Your task to perform on an android device: Search for Italian restaurants on Maps Image 0: 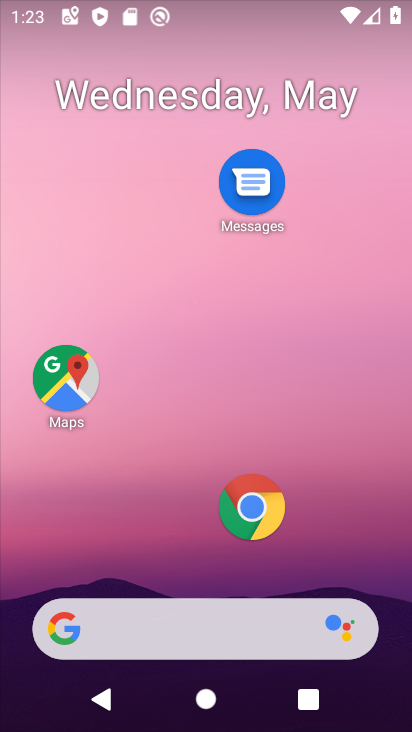
Step 0: drag from (207, 553) to (202, 213)
Your task to perform on an android device: Search for Italian restaurants on Maps Image 1: 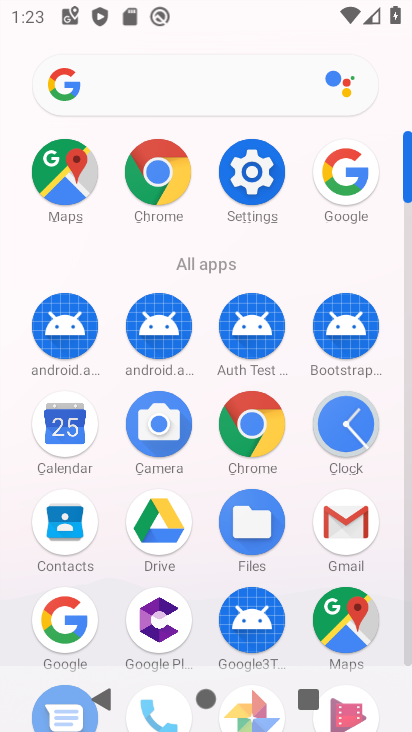
Step 1: click (361, 629)
Your task to perform on an android device: Search for Italian restaurants on Maps Image 2: 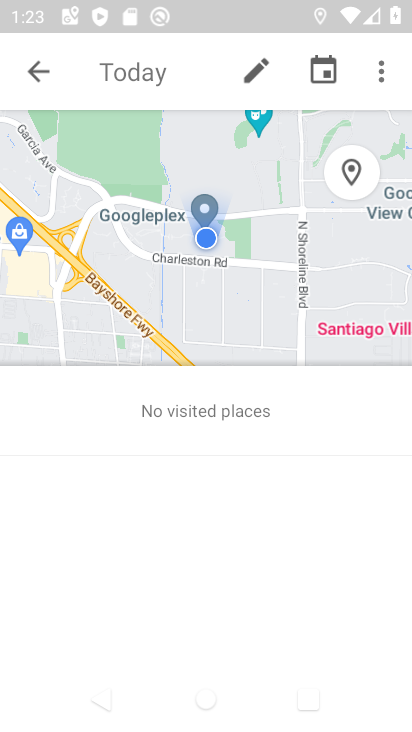
Step 2: click (40, 78)
Your task to perform on an android device: Search for Italian restaurants on Maps Image 3: 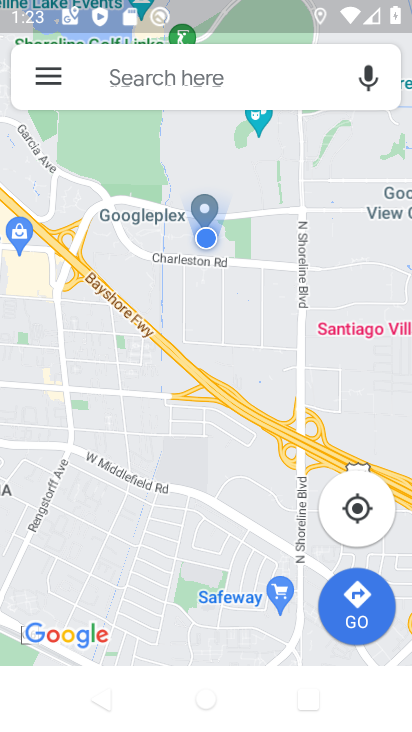
Step 3: click (198, 79)
Your task to perform on an android device: Search for Italian restaurants on Maps Image 4: 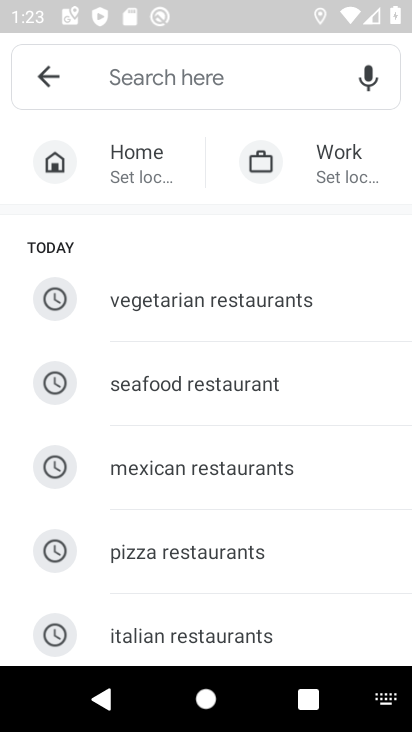
Step 4: drag from (232, 485) to (249, 256)
Your task to perform on an android device: Search for Italian restaurants on Maps Image 5: 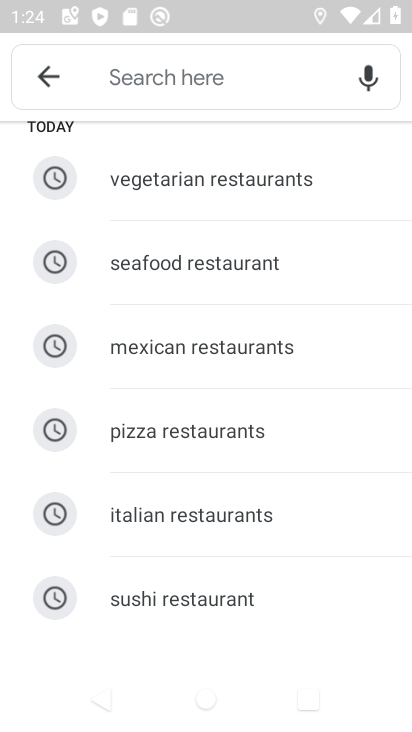
Step 5: click (236, 520)
Your task to perform on an android device: Search for Italian restaurants on Maps Image 6: 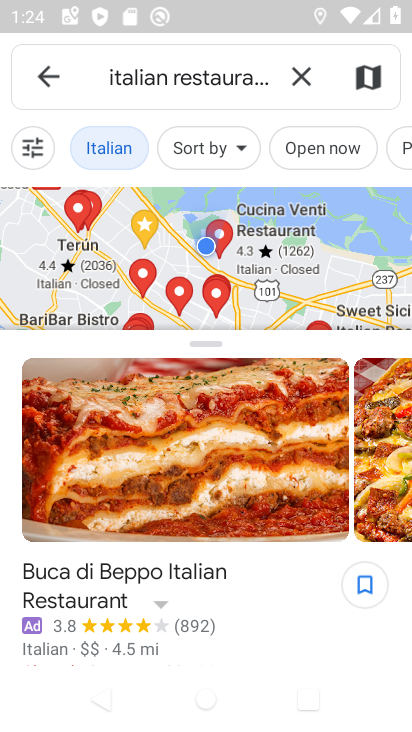
Step 6: task complete